Your task to perform on an android device: Open display settings Image 0: 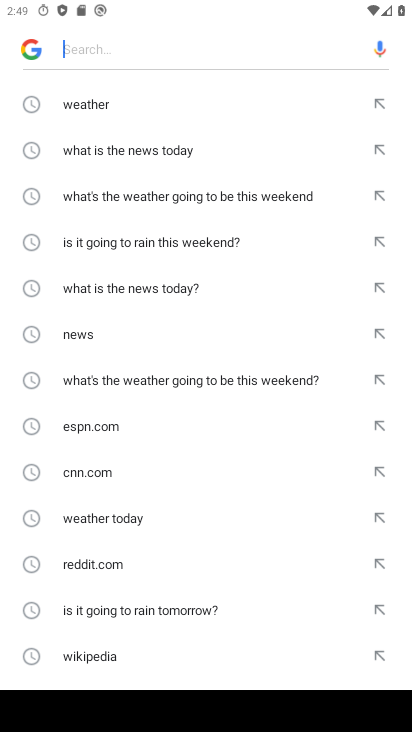
Step 0: press home button
Your task to perform on an android device: Open display settings Image 1: 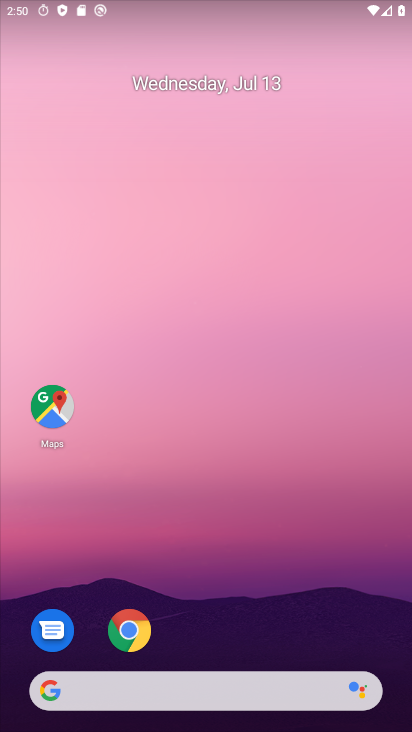
Step 1: drag from (18, 696) to (241, 151)
Your task to perform on an android device: Open display settings Image 2: 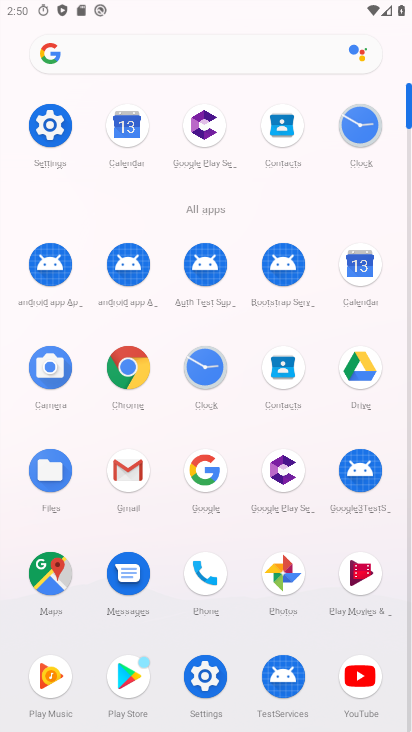
Step 2: click (198, 679)
Your task to perform on an android device: Open display settings Image 3: 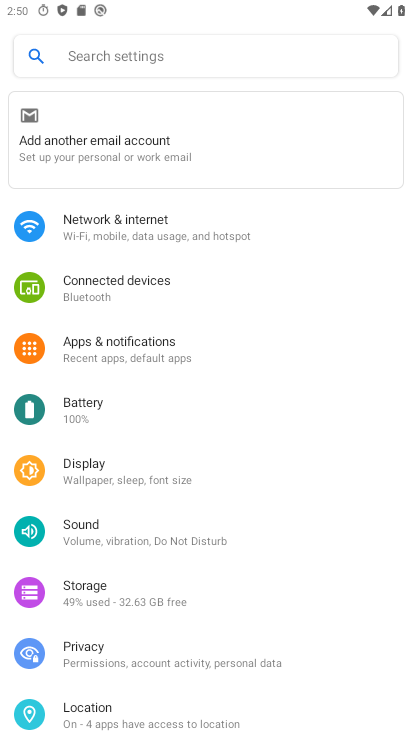
Step 3: click (125, 468)
Your task to perform on an android device: Open display settings Image 4: 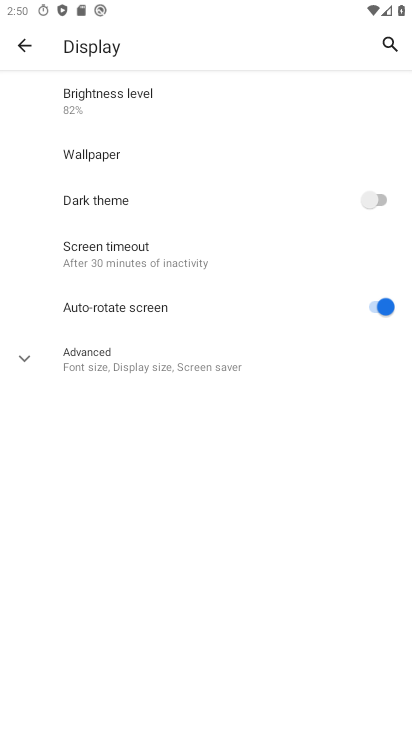
Step 4: task complete